Your task to perform on an android device: open app "Facebook Messenger" Image 0: 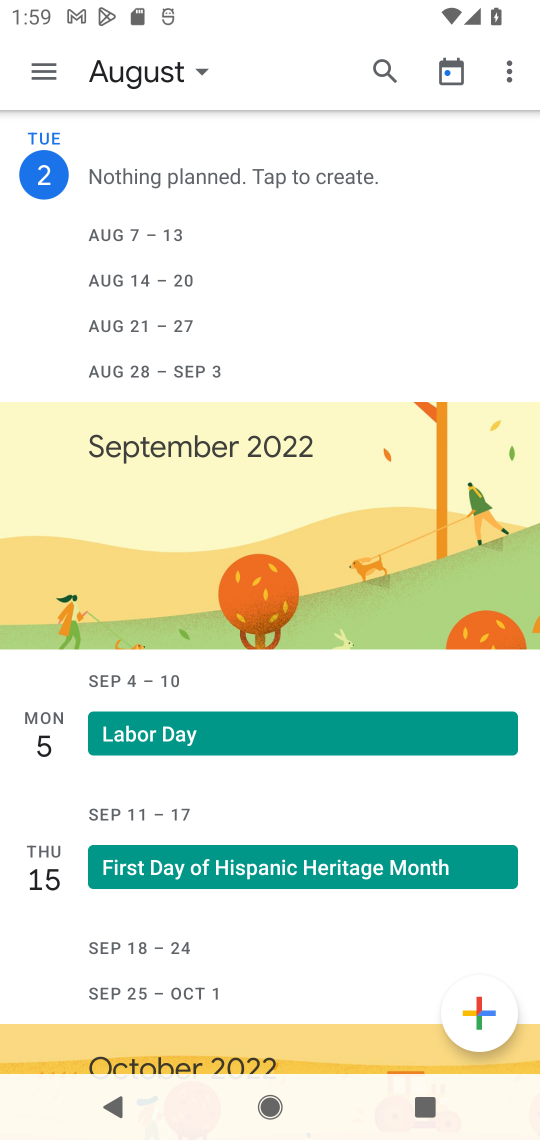
Step 0: press home button
Your task to perform on an android device: open app "Facebook Messenger" Image 1: 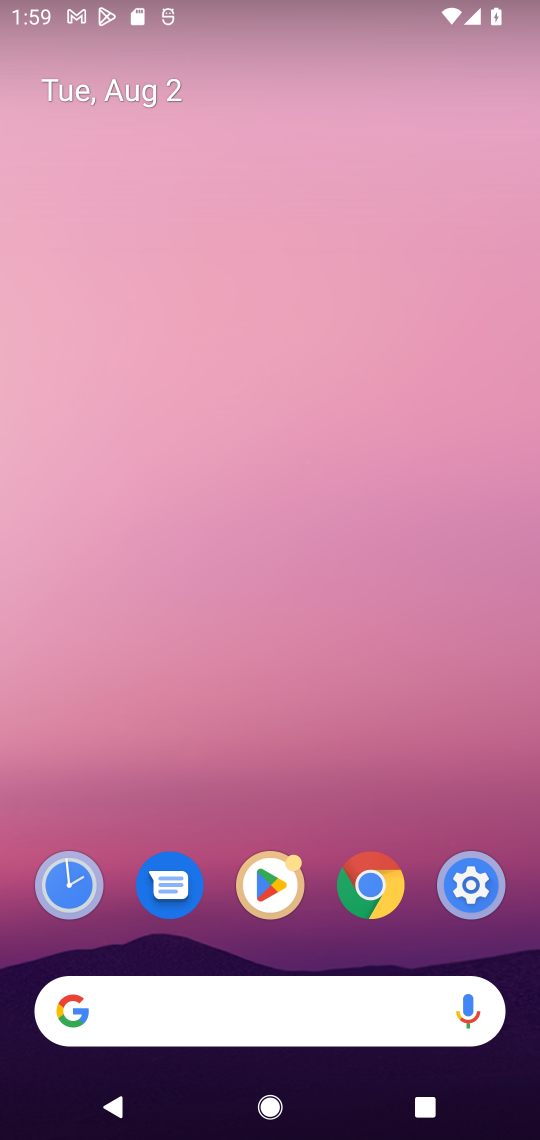
Step 1: click (289, 892)
Your task to perform on an android device: open app "Facebook Messenger" Image 2: 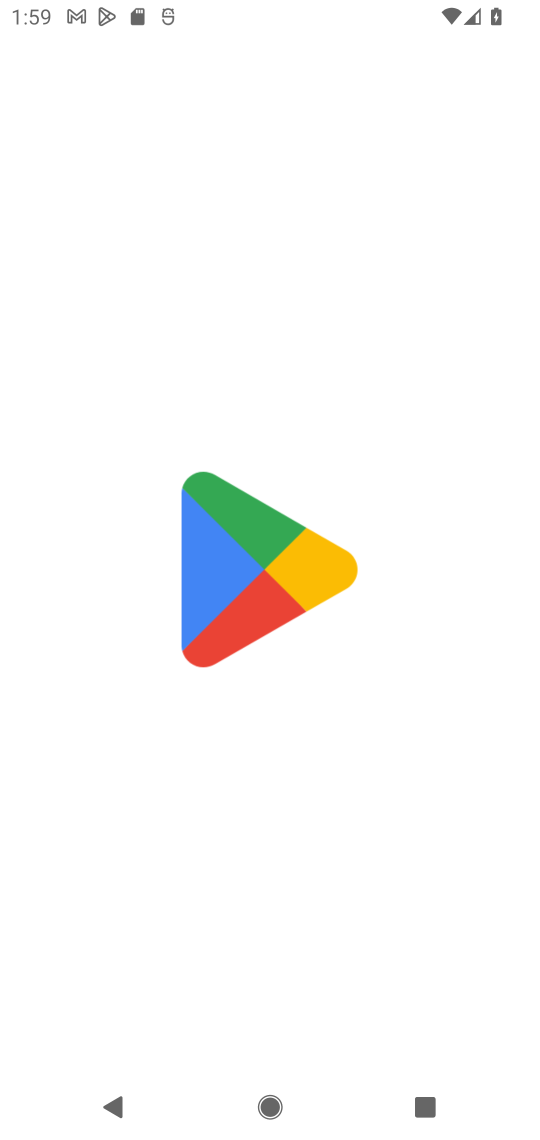
Step 2: task complete